Your task to perform on an android device: turn notification dots off Image 0: 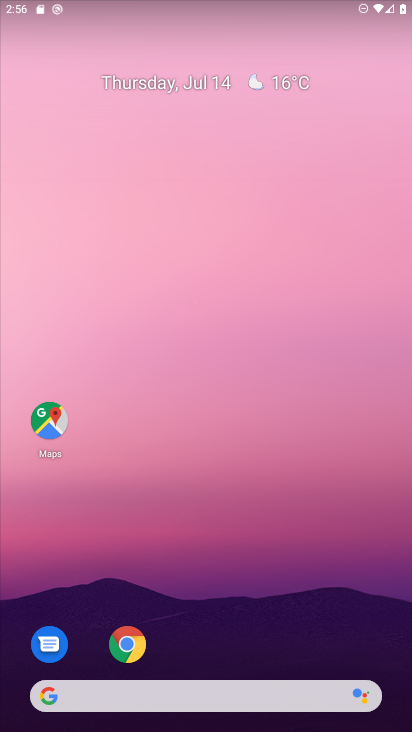
Step 0: drag from (226, 639) to (226, 220)
Your task to perform on an android device: turn notification dots off Image 1: 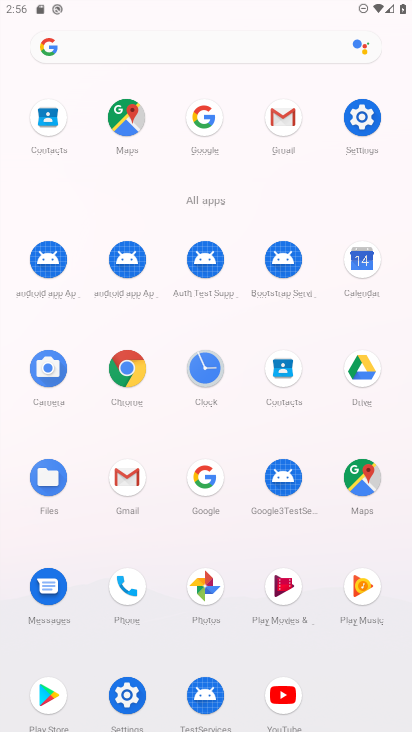
Step 1: click (356, 122)
Your task to perform on an android device: turn notification dots off Image 2: 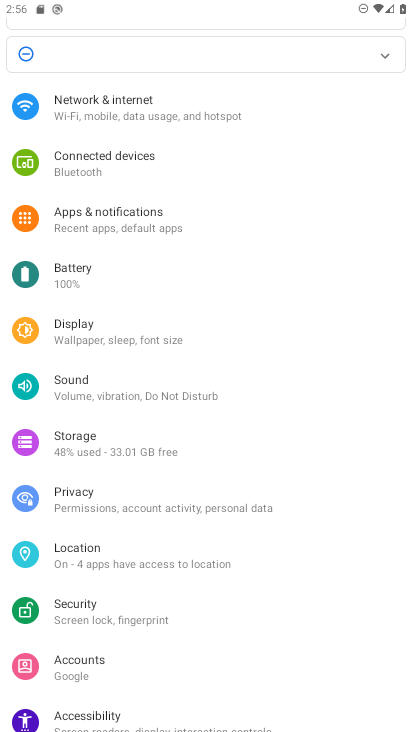
Step 2: click (176, 213)
Your task to perform on an android device: turn notification dots off Image 3: 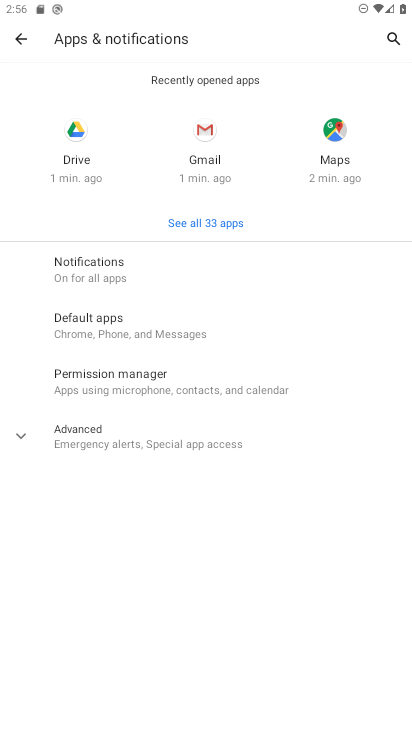
Step 3: click (164, 281)
Your task to perform on an android device: turn notification dots off Image 4: 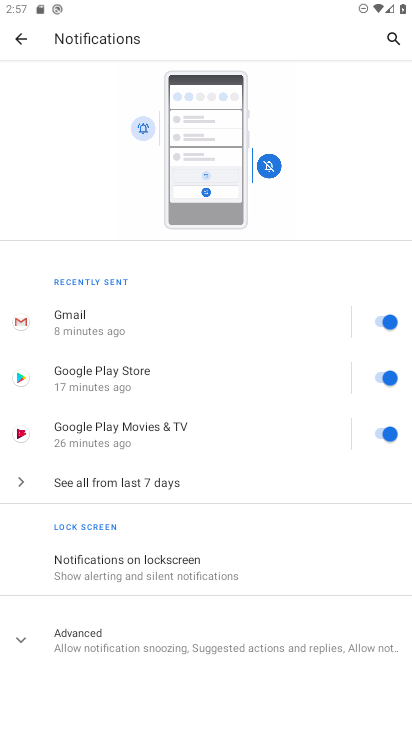
Step 4: drag from (215, 517) to (207, 382)
Your task to perform on an android device: turn notification dots off Image 5: 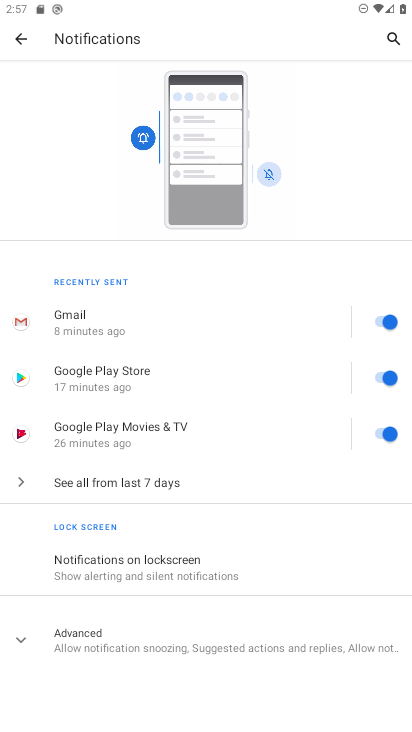
Step 5: click (110, 648)
Your task to perform on an android device: turn notification dots off Image 6: 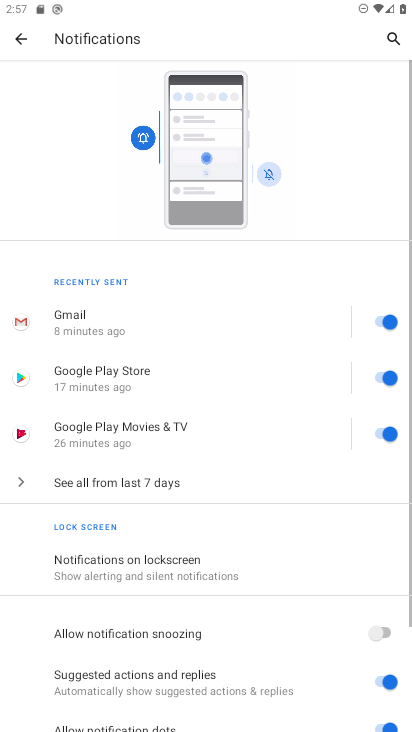
Step 6: drag from (194, 659) to (201, 333)
Your task to perform on an android device: turn notification dots off Image 7: 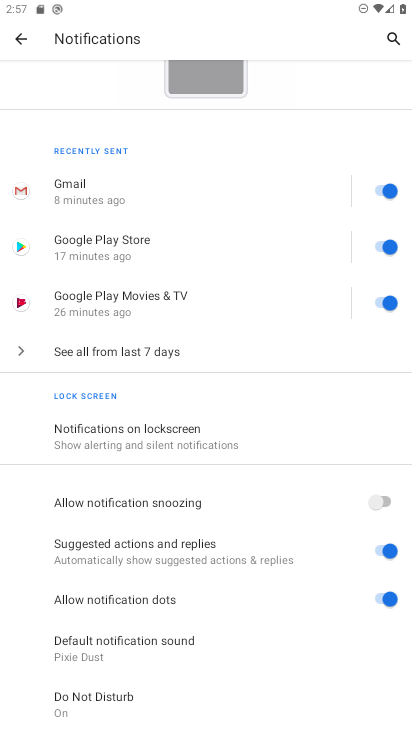
Step 7: click (371, 598)
Your task to perform on an android device: turn notification dots off Image 8: 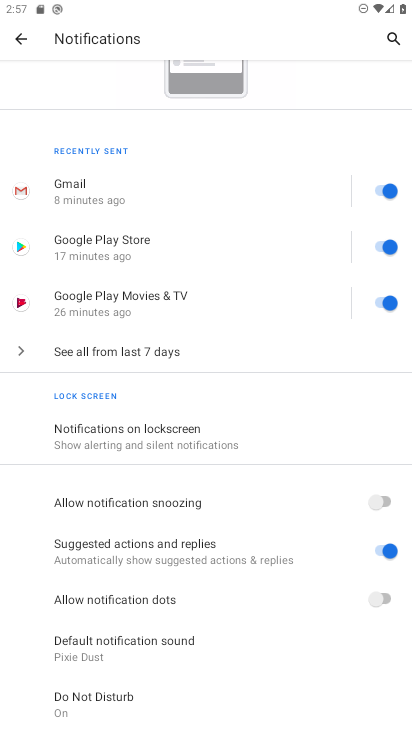
Step 8: task complete